Your task to perform on an android device: What is the recent news? Image 0: 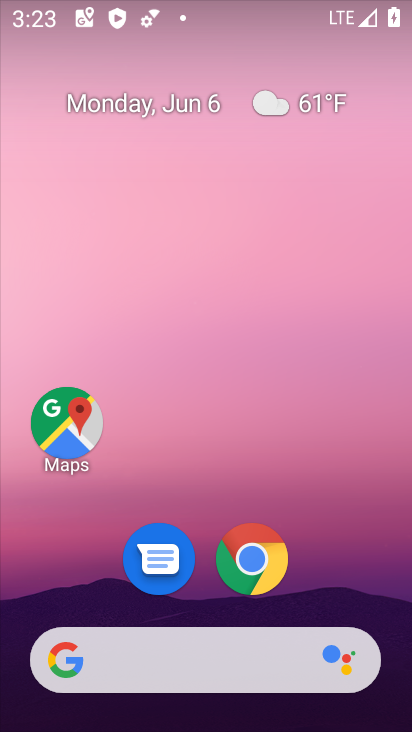
Step 0: click (182, 642)
Your task to perform on an android device: What is the recent news? Image 1: 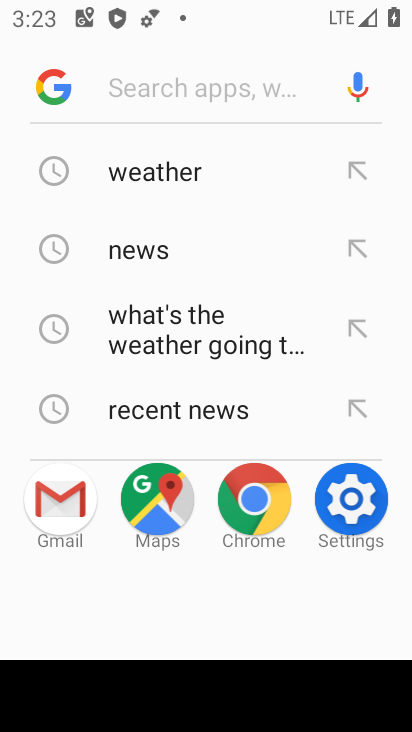
Step 1: click (117, 242)
Your task to perform on an android device: What is the recent news? Image 2: 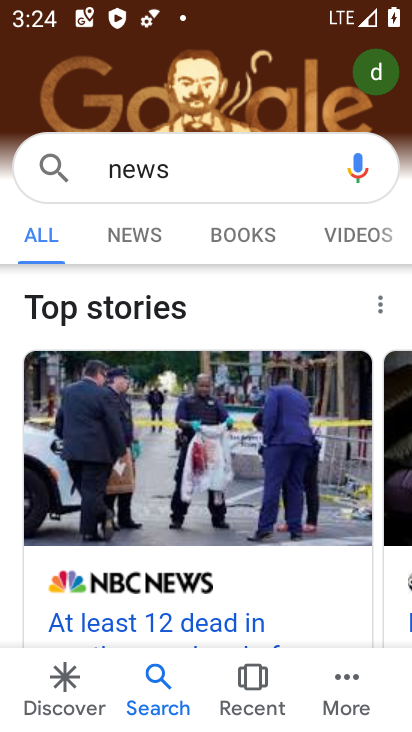
Step 2: click (135, 253)
Your task to perform on an android device: What is the recent news? Image 3: 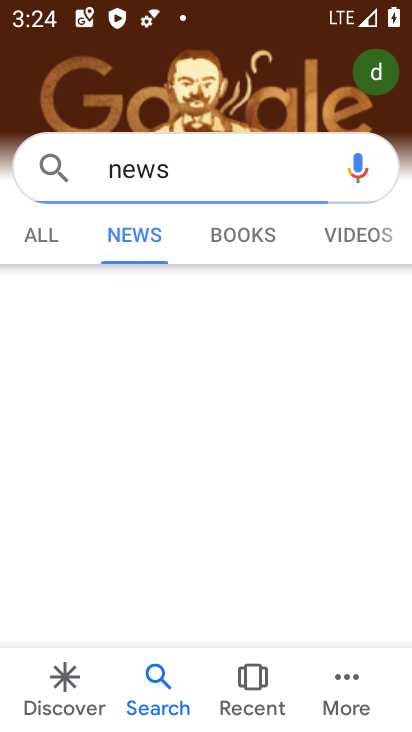
Step 3: task complete